Your task to perform on an android device: turn on location history Image 0: 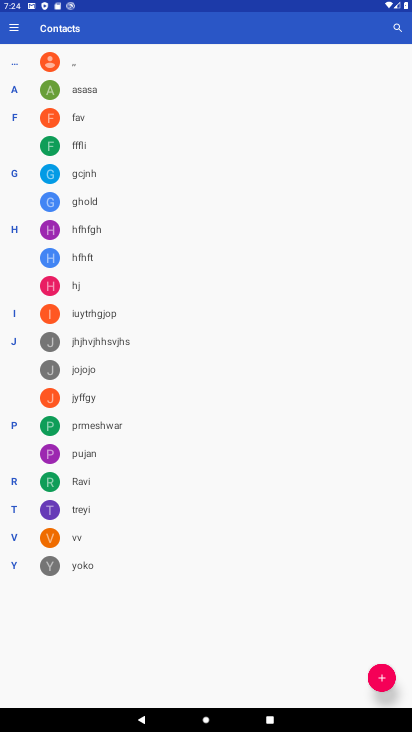
Step 0: press home button
Your task to perform on an android device: turn on location history Image 1: 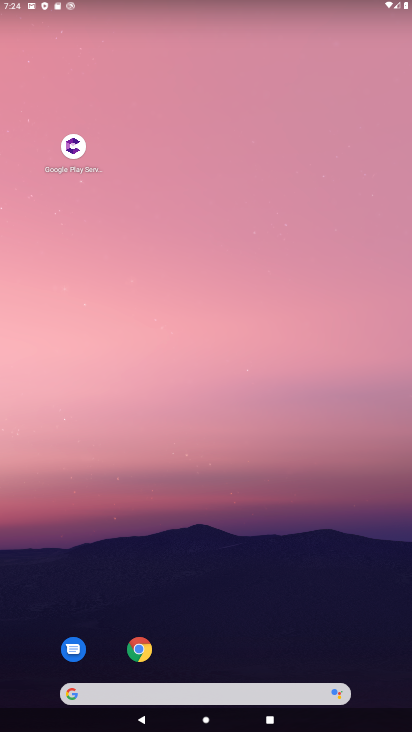
Step 1: drag from (237, 666) to (230, 0)
Your task to perform on an android device: turn on location history Image 2: 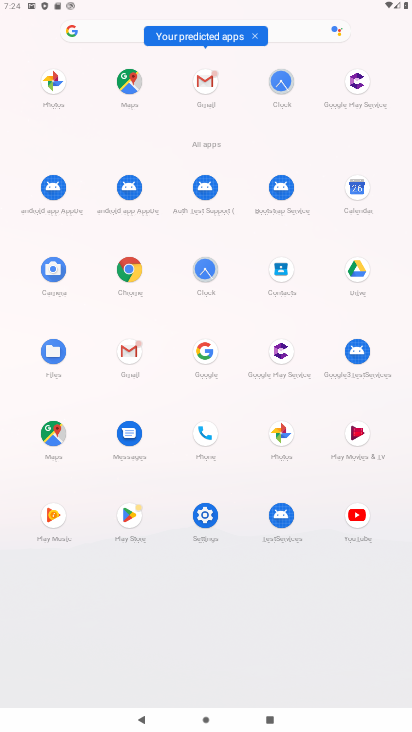
Step 2: click (125, 87)
Your task to perform on an android device: turn on location history Image 3: 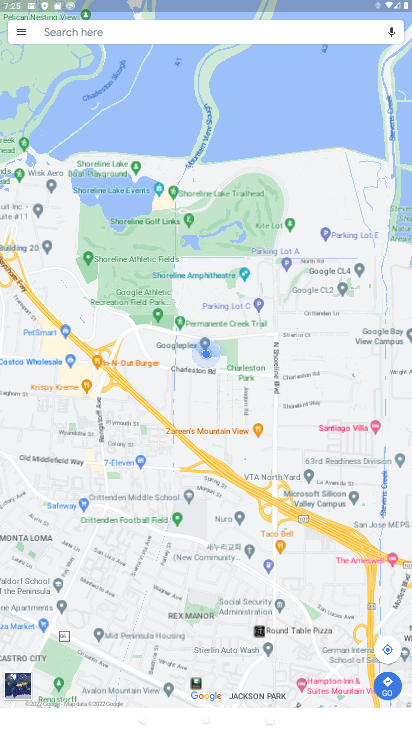
Step 3: click (25, 30)
Your task to perform on an android device: turn on location history Image 4: 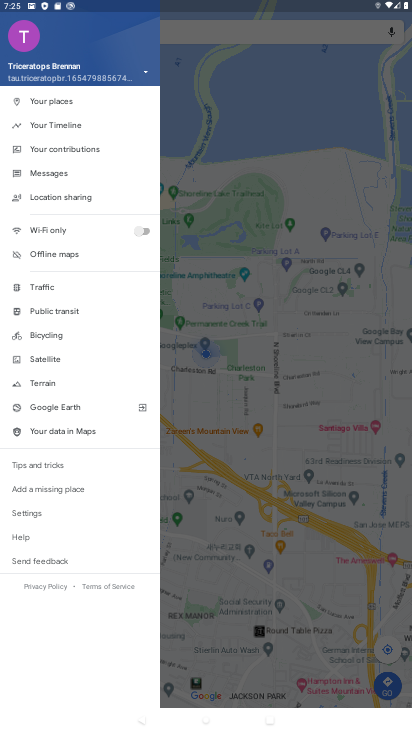
Step 4: click (67, 125)
Your task to perform on an android device: turn on location history Image 5: 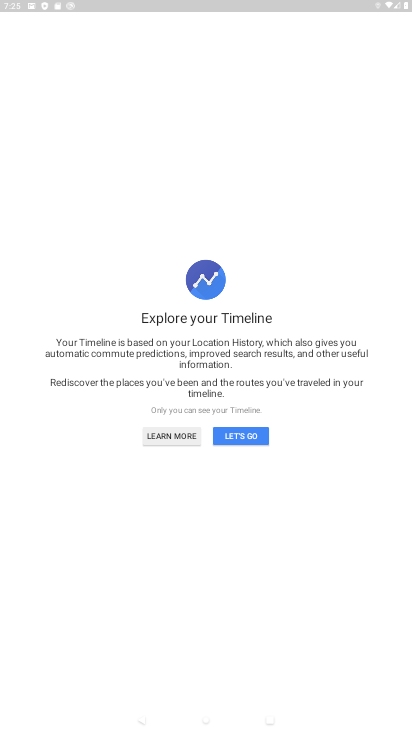
Step 5: click (248, 436)
Your task to perform on an android device: turn on location history Image 6: 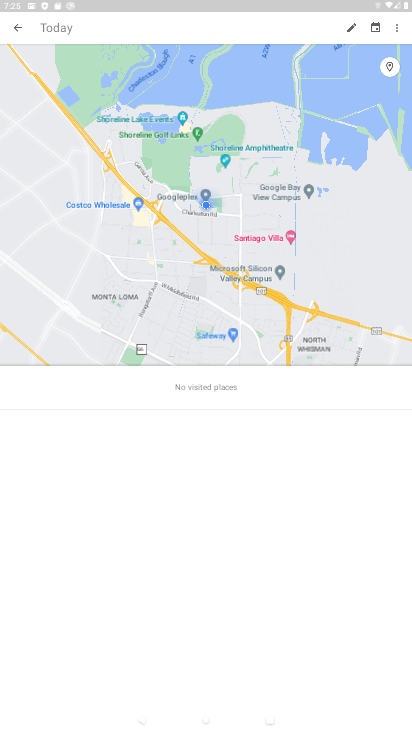
Step 6: click (397, 34)
Your task to perform on an android device: turn on location history Image 7: 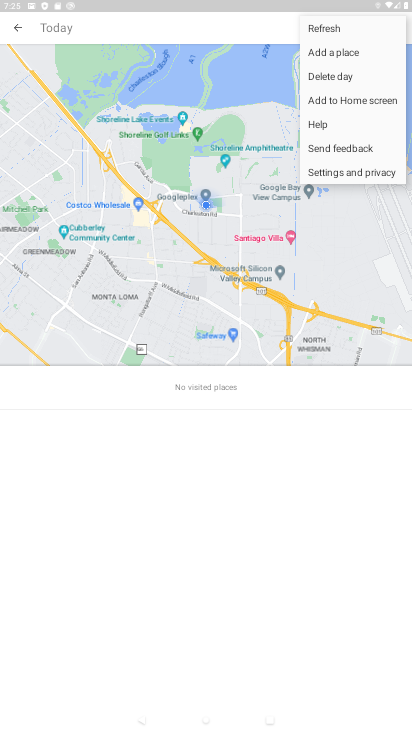
Step 7: click (342, 168)
Your task to perform on an android device: turn on location history Image 8: 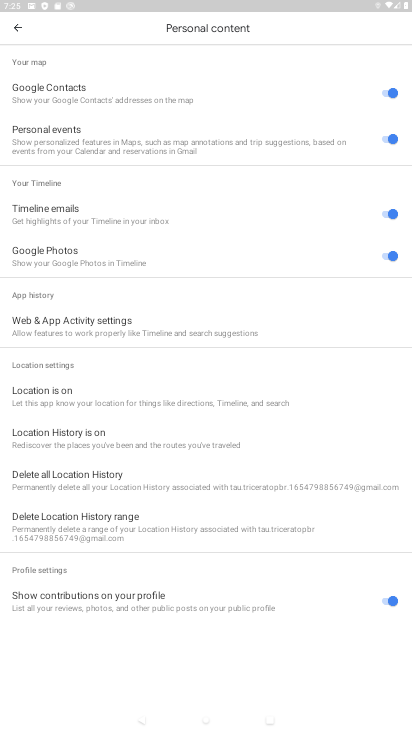
Step 8: click (71, 437)
Your task to perform on an android device: turn on location history Image 9: 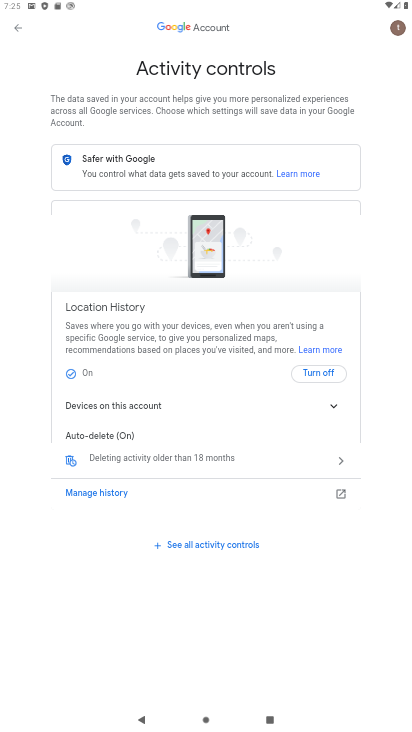
Step 9: task complete